Your task to perform on an android device: turn on airplane mode Image 0: 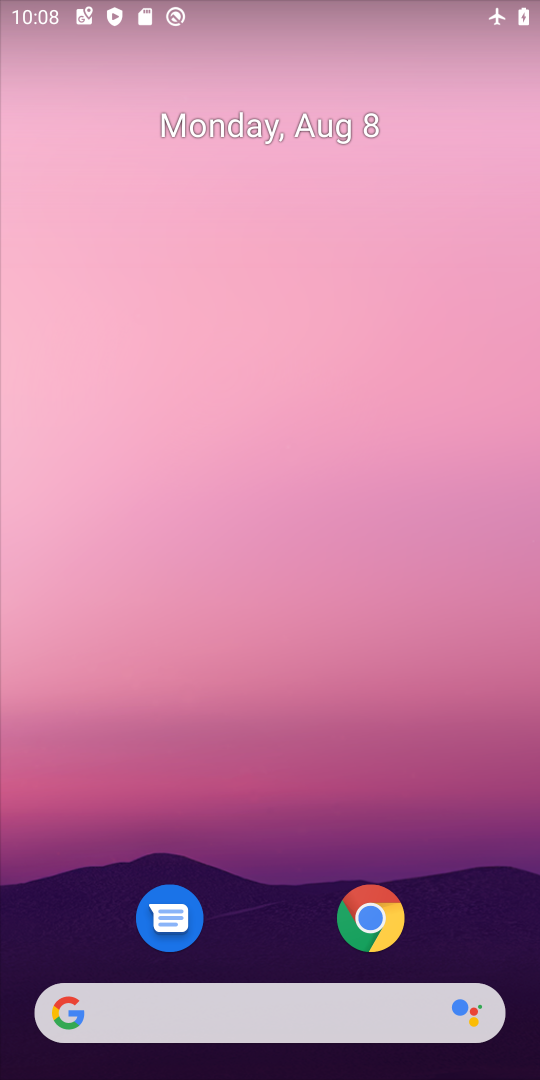
Step 0: drag from (236, 973) to (512, 481)
Your task to perform on an android device: turn on airplane mode Image 1: 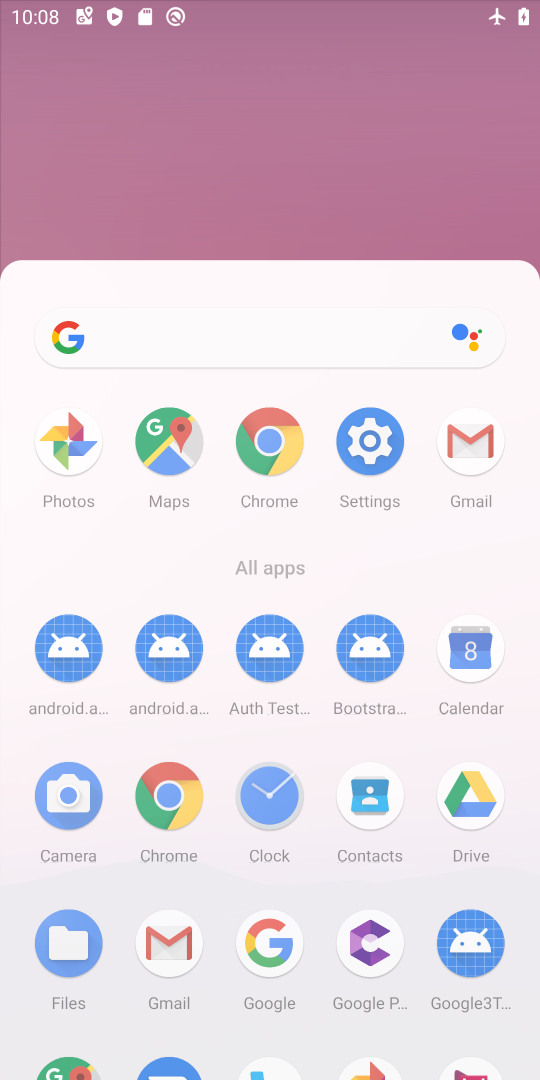
Step 1: drag from (263, 1002) to (179, 411)
Your task to perform on an android device: turn on airplane mode Image 2: 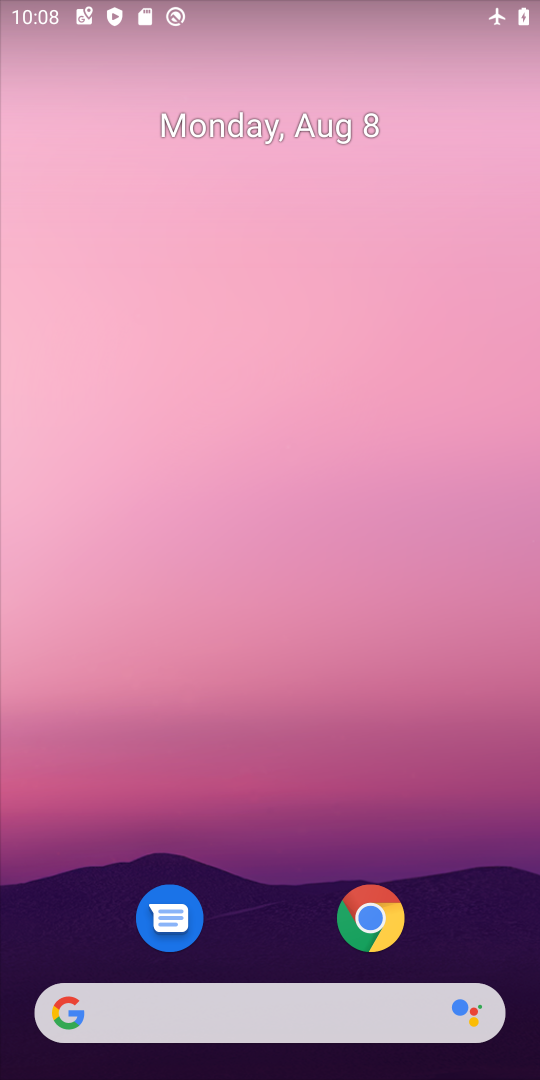
Step 2: drag from (149, 167) to (157, 3)
Your task to perform on an android device: turn on airplane mode Image 3: 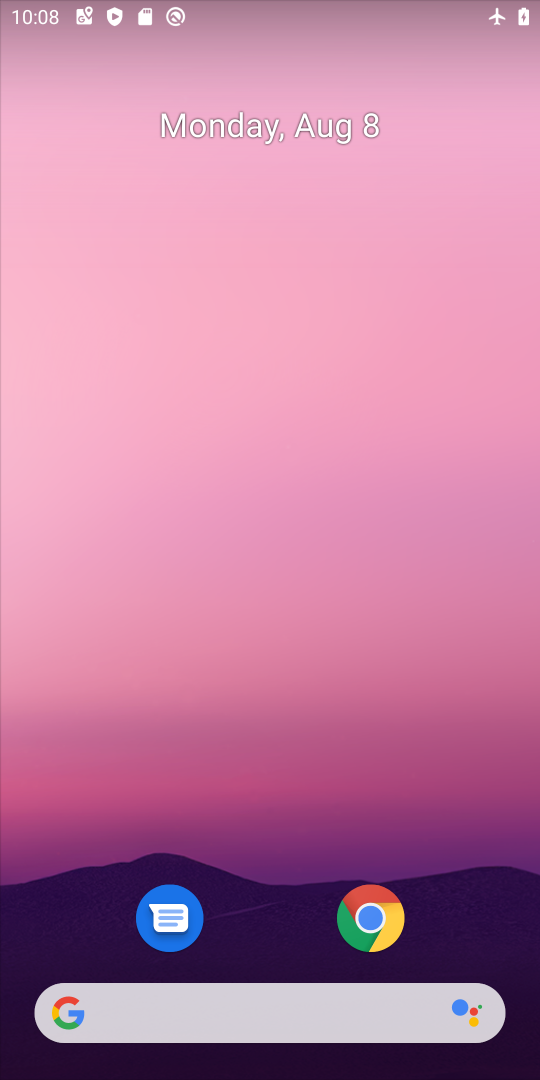
Step 3: drag from (267, 953) to (229, 58)
Your task to perform on an android device: turn on airplane mode Image 4: 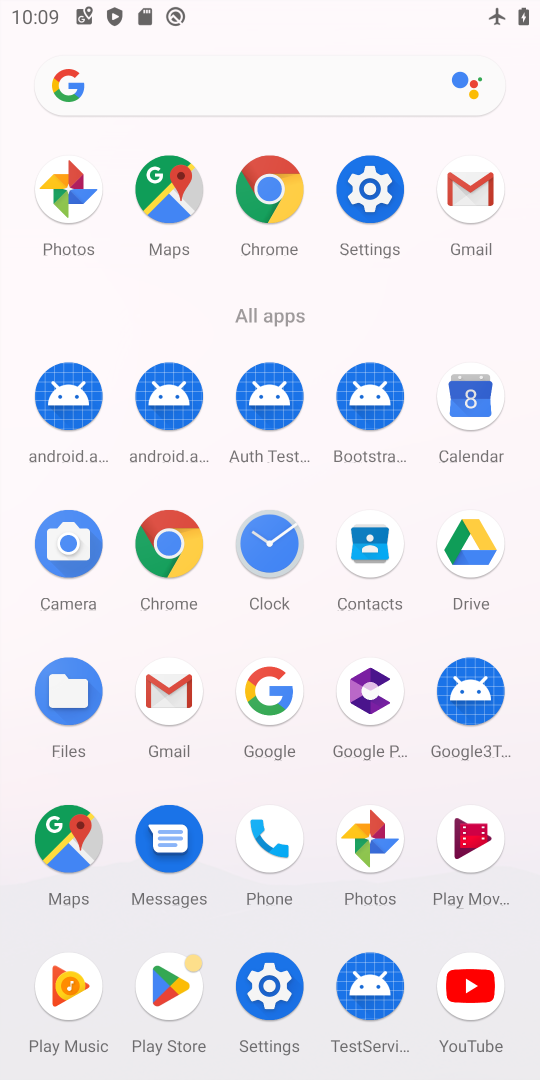
Step 4: click (291, 989)
Your task to perform on an android device: turn on airplane mode Image 5: 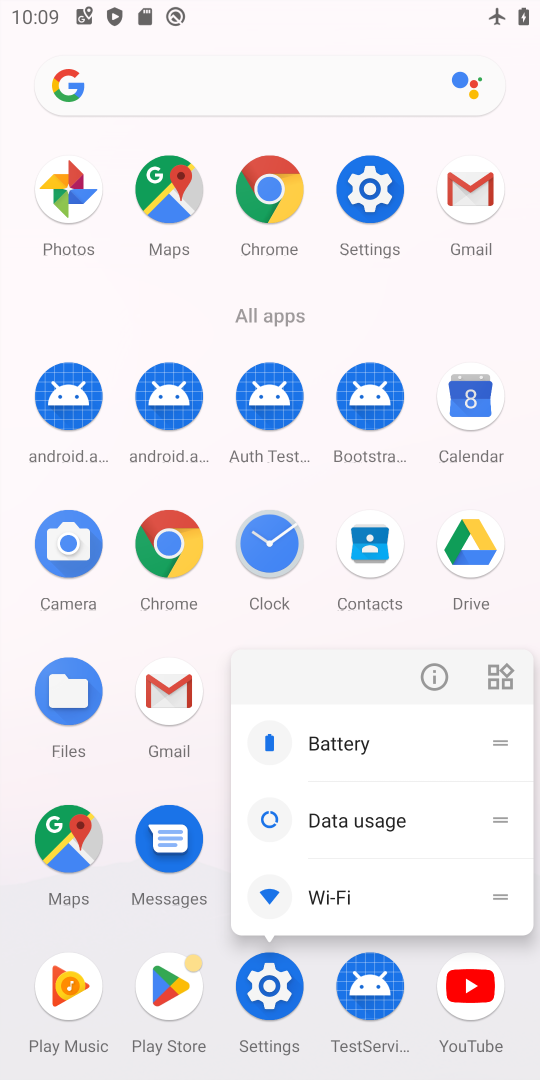
Step 5: click (270, 1001)
Your task to perform on an android device: turn on airplane mode Image 6: 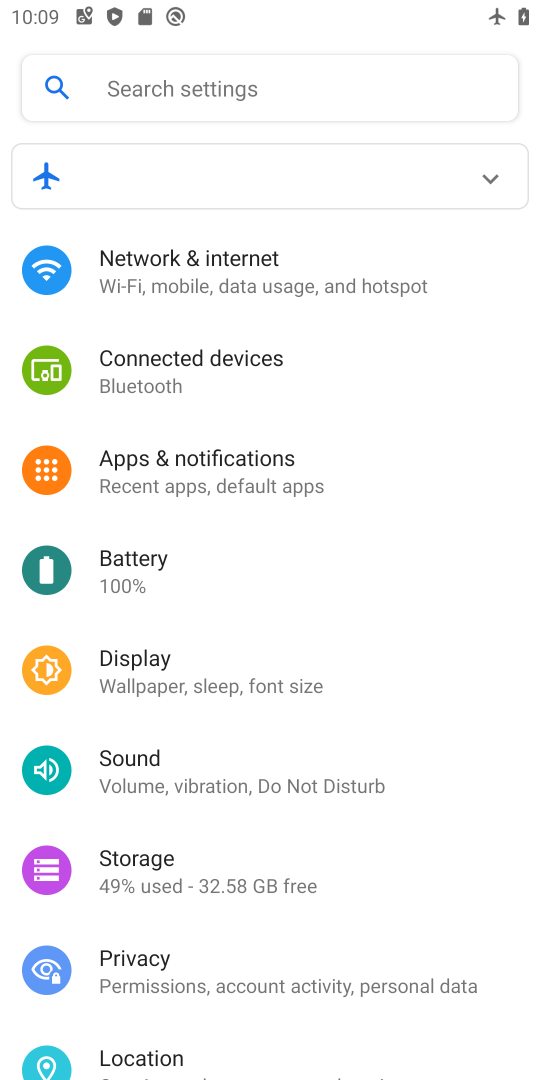
Step 6: click (195, 287)
Your task to perform on an android device: turn on airplane mode Image 7: 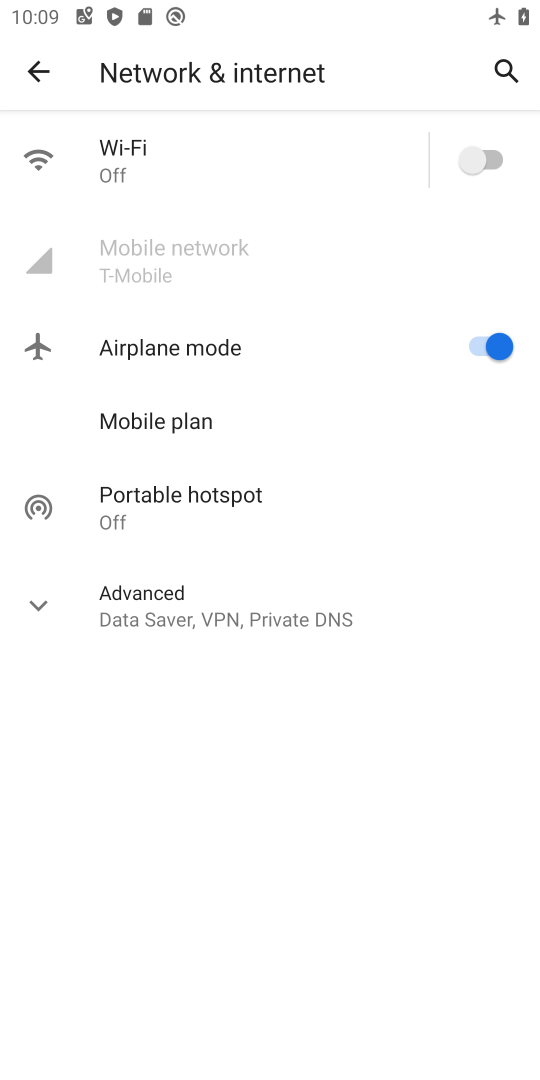
Step 7: task complete